Your task to perform on an android device: Open internet settings Image 0: 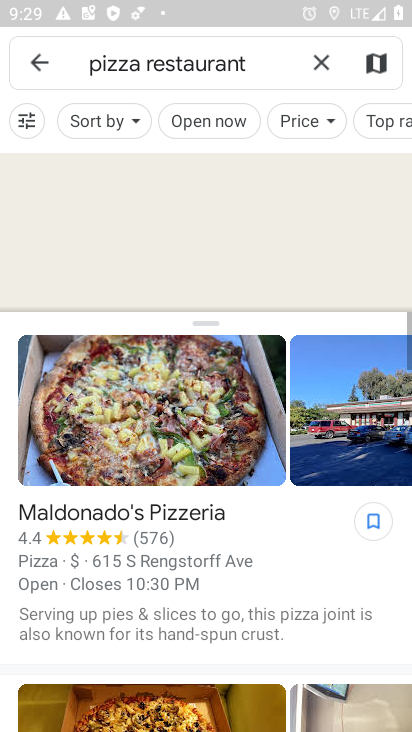
Step 0: press home button
Your task to perform on an android device: Open internet settings Image 1: 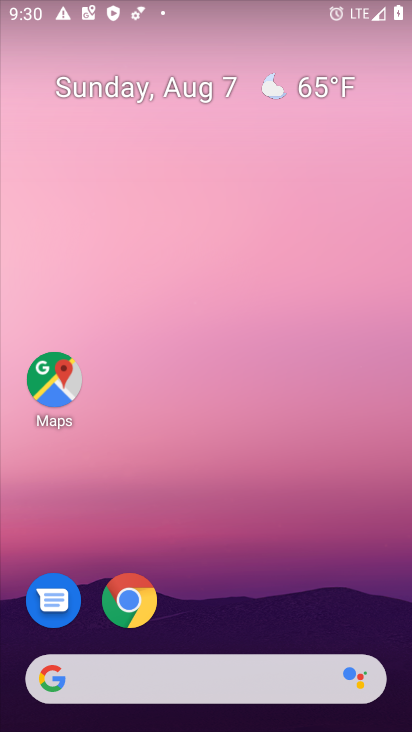
Step 1: drag from (200, 498) to (218, 74)
Your task to perform on an android device: Open internet settings Image 2: 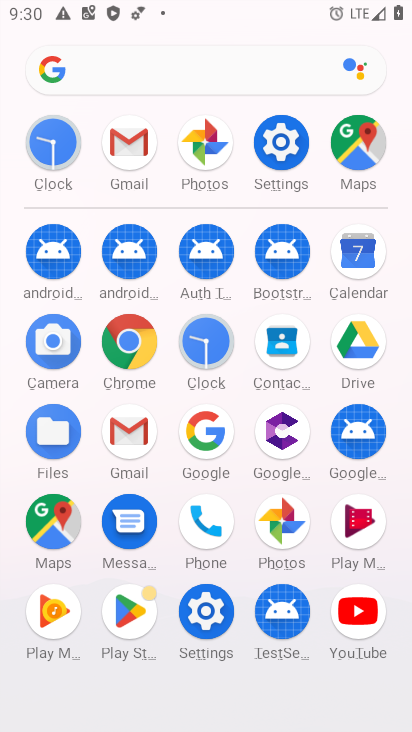
Step 2: click (278, 147)
Your task to perform on an android device: Open internet settings Image 3: 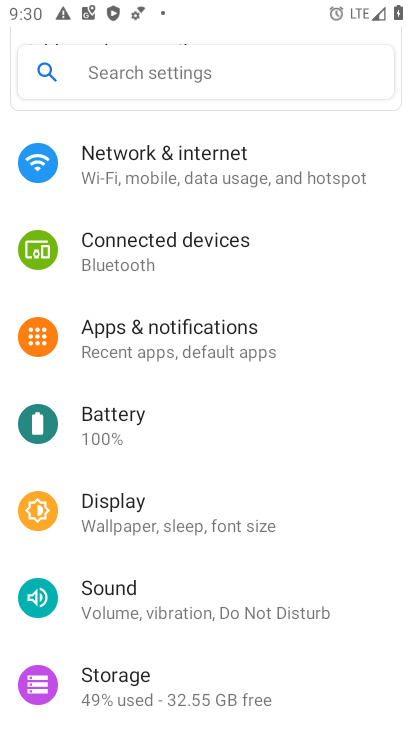
Step 3: click (165, 162)
Your task to perform on an android device: Open internet settings Image 4: 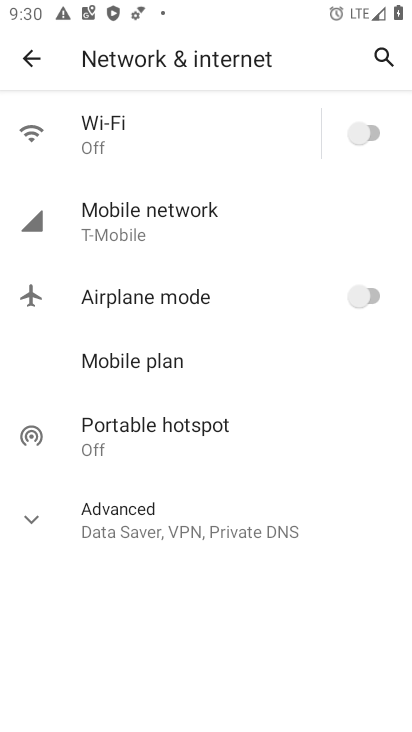
Step 4: task complete